Your task to perform on an android device: turn off location Image 0: 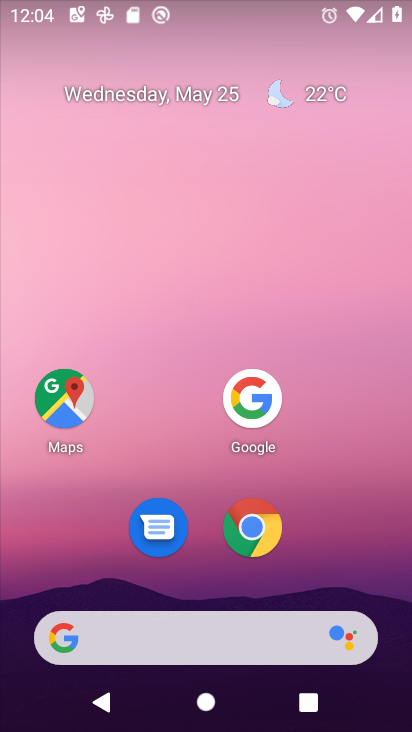
Step 0: press home button
Your task to perform on an android device: turn off location Image 1: 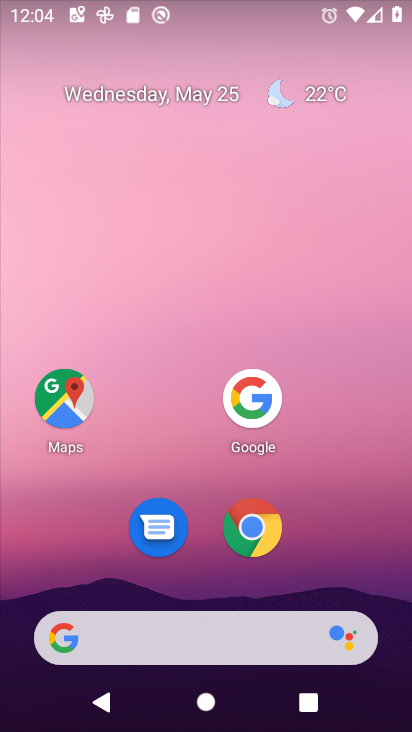
Step 1: drag from (159, 632) to (314, 132)
Your task to perform on an android device: turn off location Image 2: 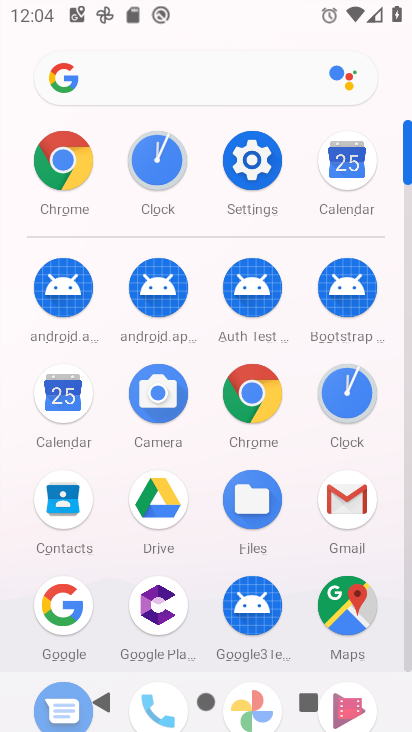
Step 2: click (243, 163)
Your task to perform on an android device: turn off location Image 3: 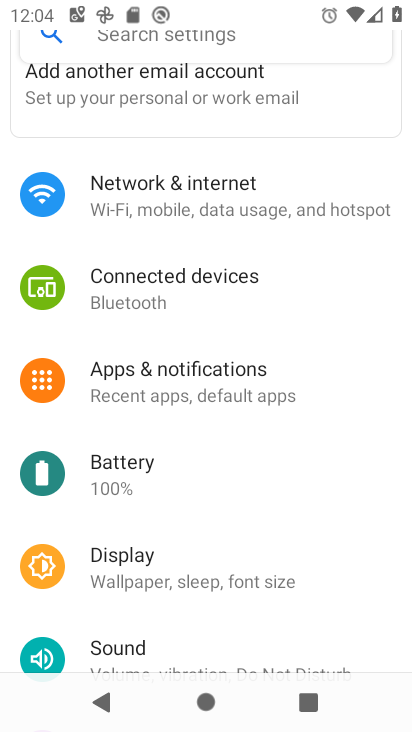
Step 3: drag from (168, 623) to (327, 152)
Your task to perform on an android device: turn off location Image 4: 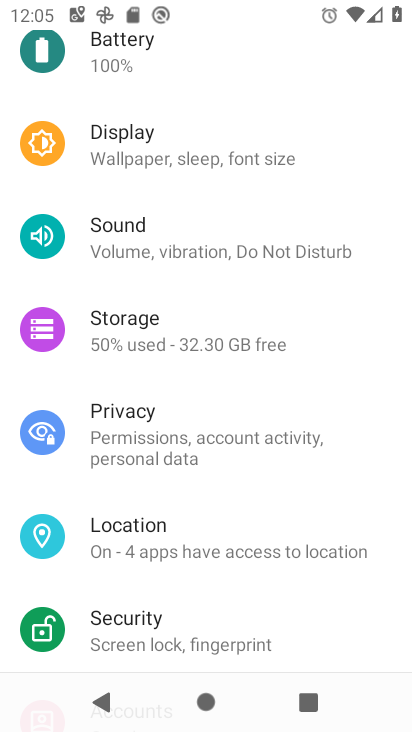
Step 4: click (155, 542)
Your task to perform on an android device: turn off location Image 5: 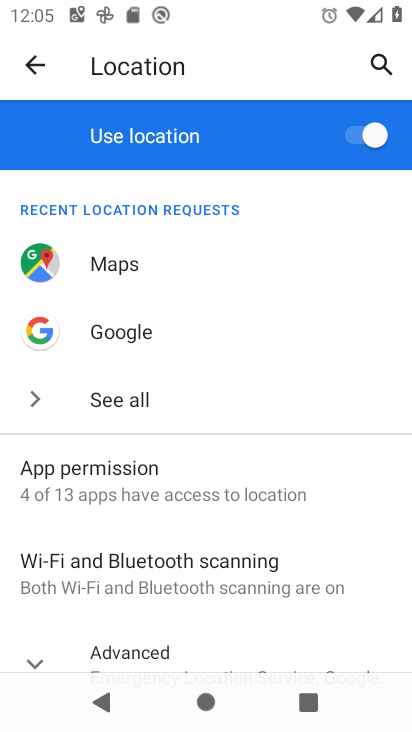
Step 5: click (352, 138)
Your task to perform on an android device: turn off location Image 6: 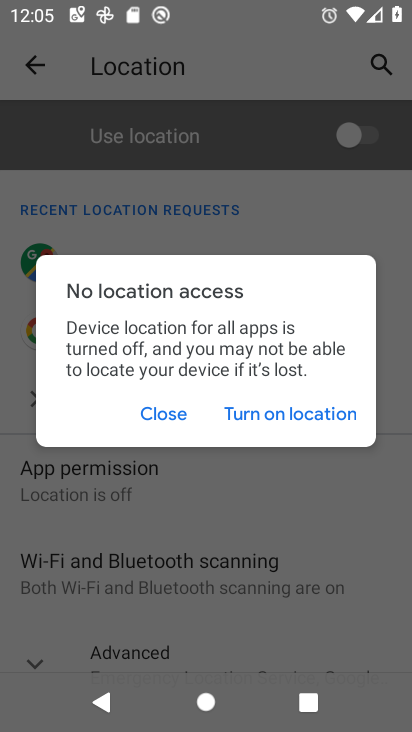
Step 6: task complete